Your task to perform on an android device: turn off airplane mode Image 0: 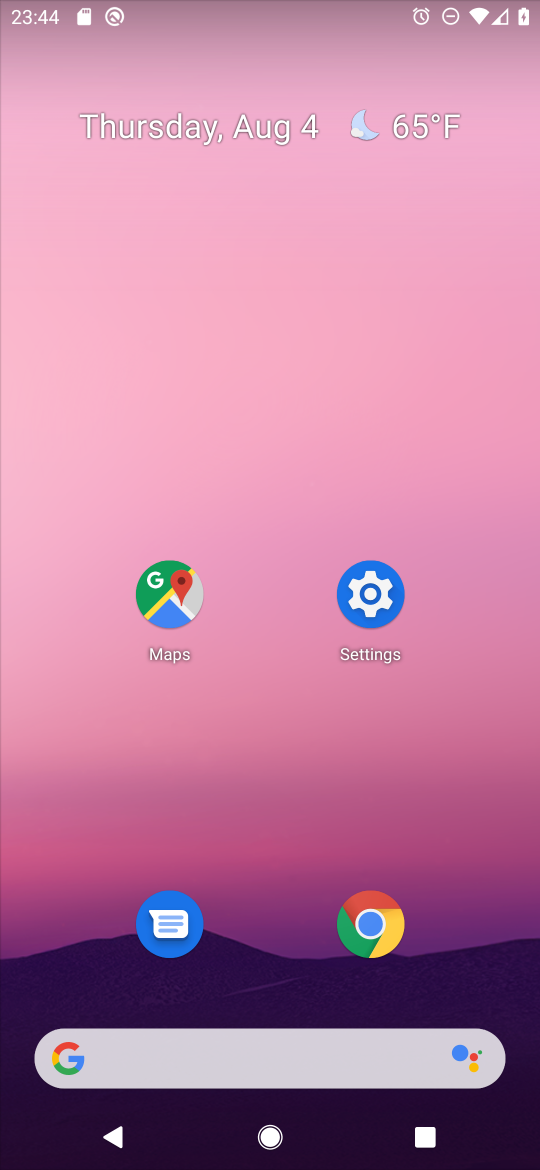
Step 0: press home button
Your task to perform on an android device: turn off airplane mode Image 1: 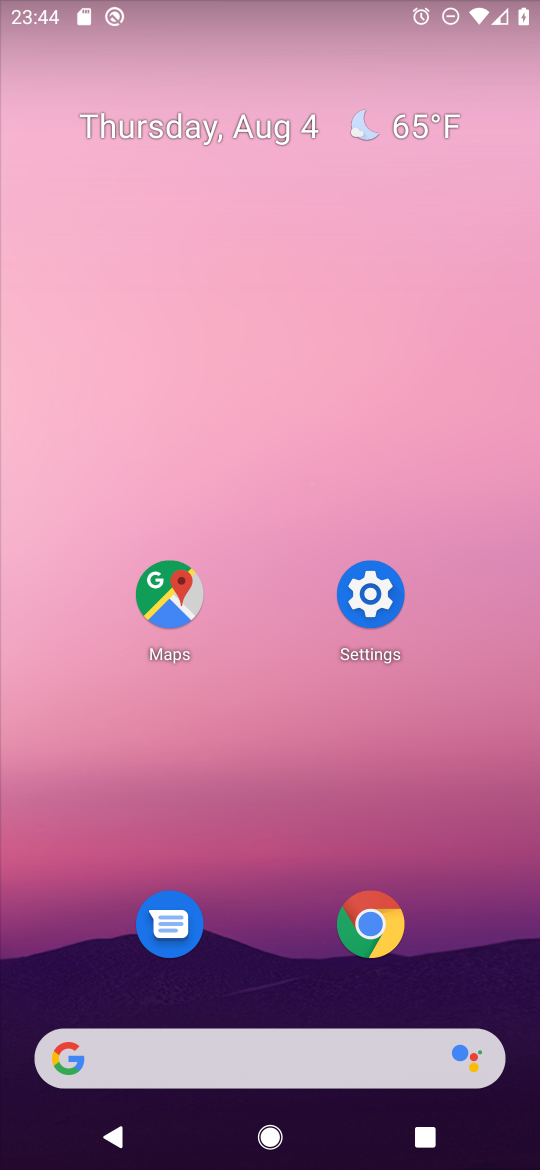
Step 1: click (375, 599)
Your task to perform on an android device: turn off airplane mode Image 2: 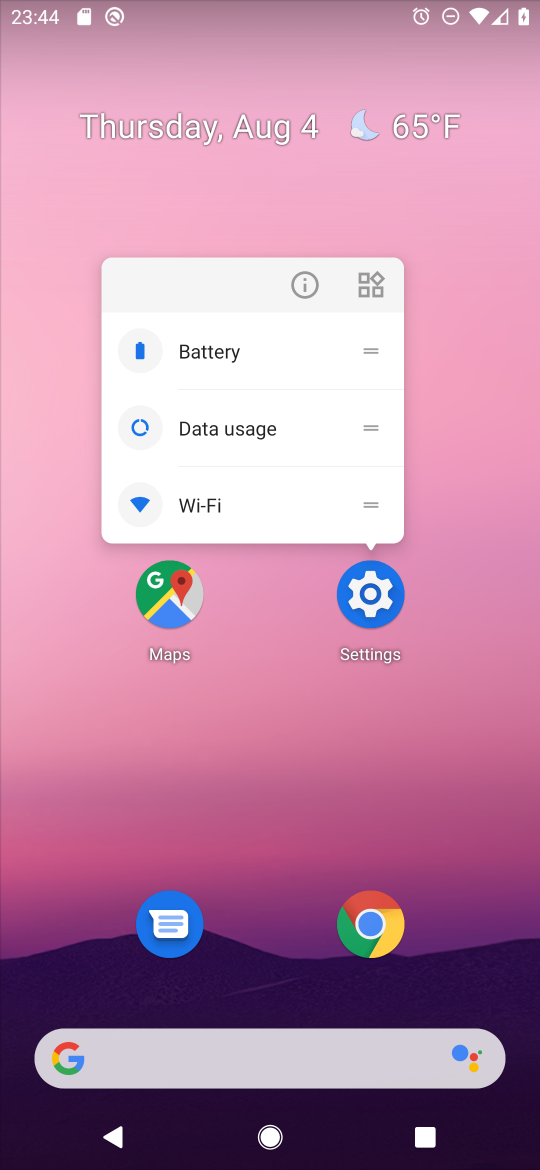
Step 2: click (375, 599)
Your task to perform on an android device: turn off airplane mode Image 3: 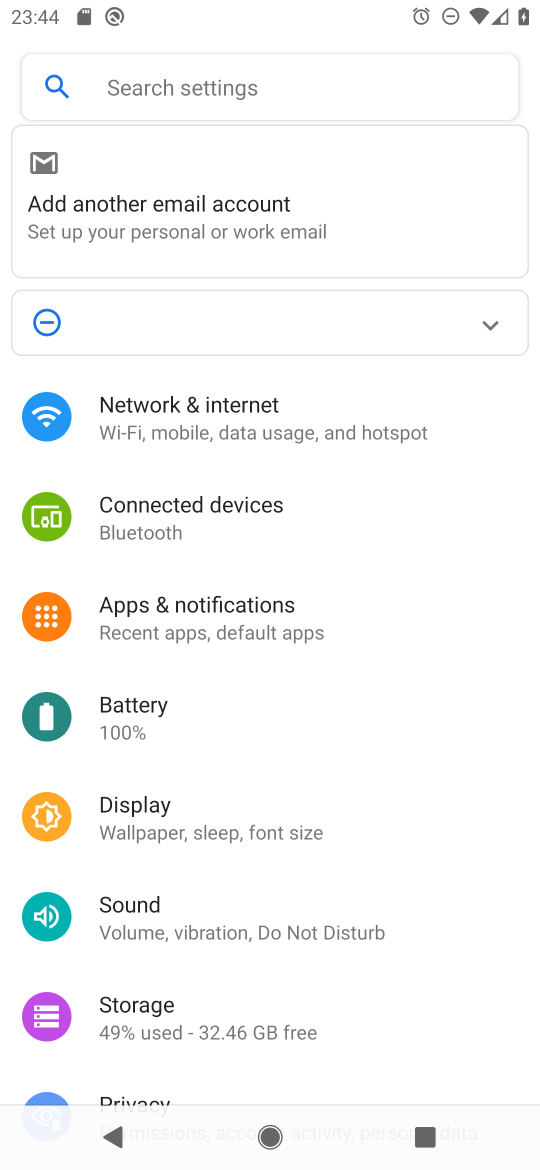
Step 3: click (267, 424)
Your task to perform on an android device: turn off airplane mode Image 4: 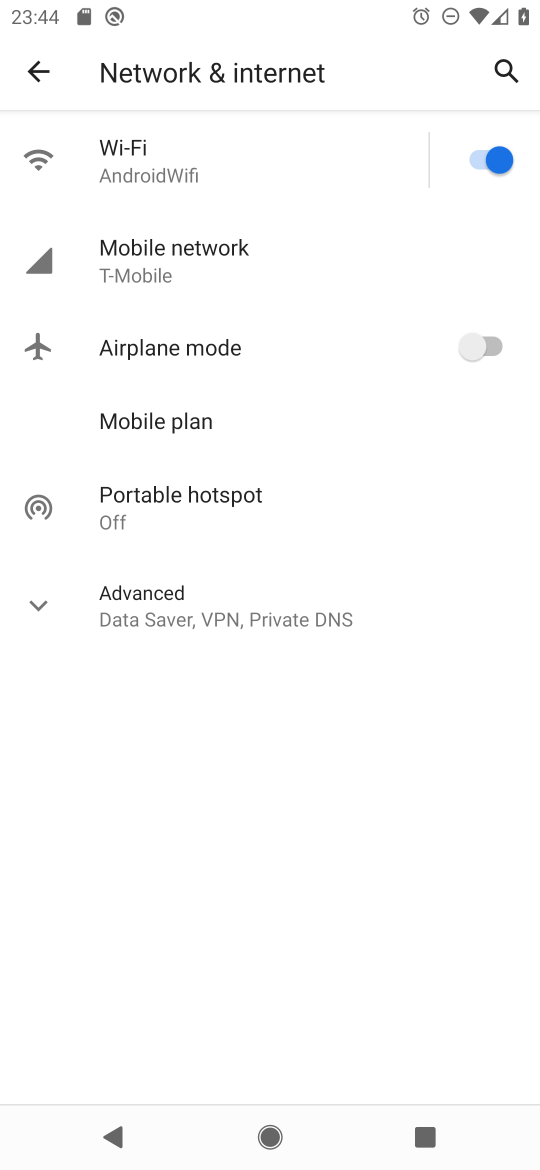
Step 4: task complete